Your task to perform on an android device: change text size in settings app Image 0: 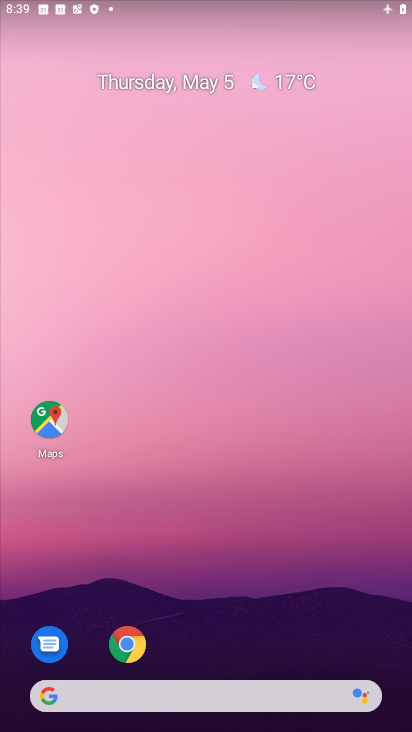
Step 0: drag from (213, 663) to (256, 93)
Your task to perform on an android device: change text size in settings app Image 1: 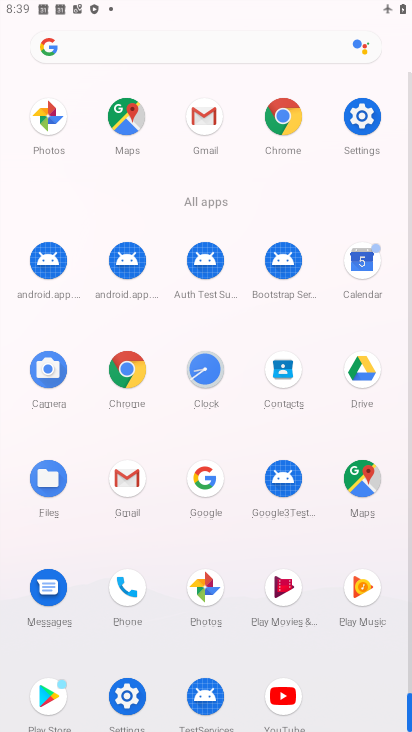
Step 1: drag from (171, 659) to (192, 288)
Your task to perform on an android device: change text size in settings app Image 2: 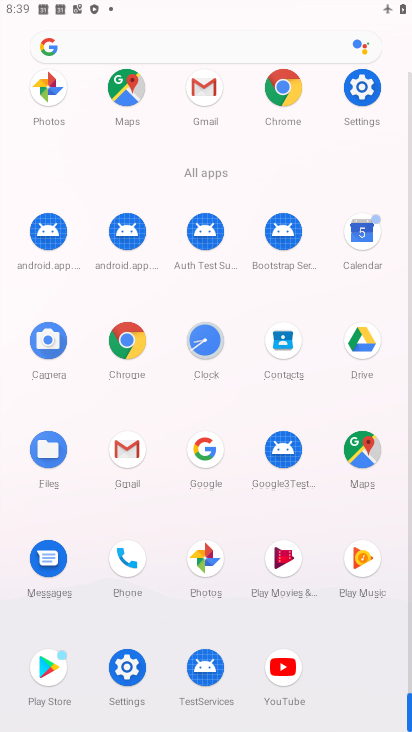
Step 2: click (120, 658)
Your task to perform on an android device: change text size in settings app Image 3: 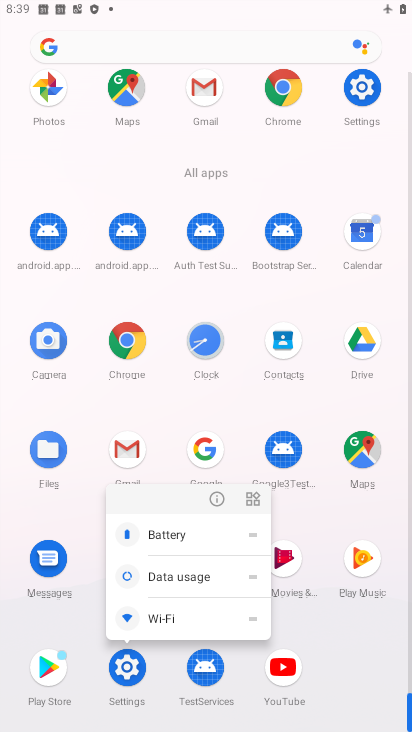
Step 3: click (220, 495)
Your task to perform on an android device: change text size in settings app Image 4: 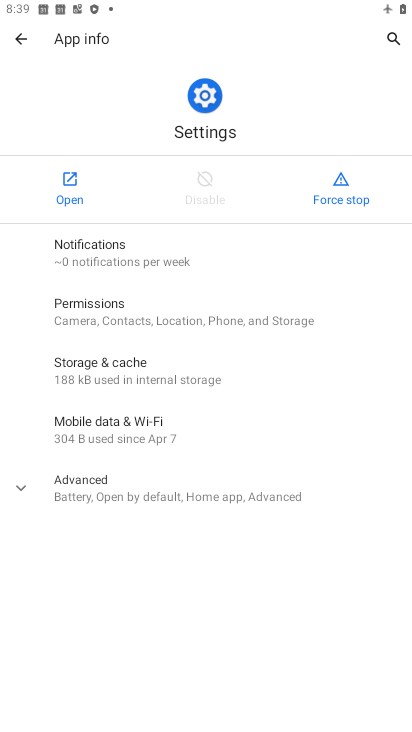
Step 4: click (71, 182)
Your task to perform on an android device: change text size in settings app Image 5: 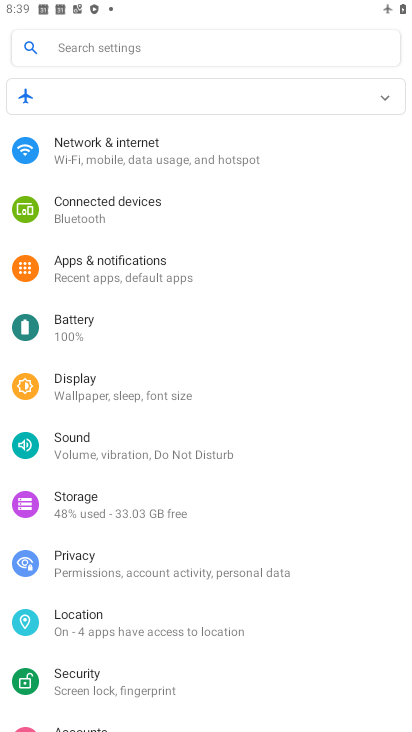
Step 5: drag from (174, 587) to (201, 178)
Your task to perform on an android device: change text size in settings app Image 6: 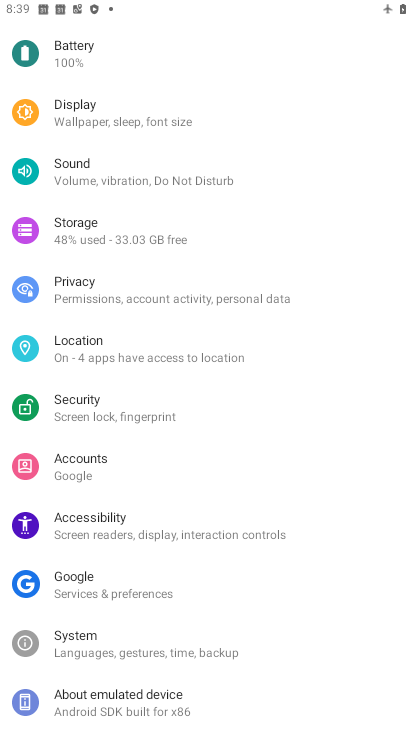
Step 6: click (165, 103)
Your task to perform on an android device: change text size in settings app Image 7: 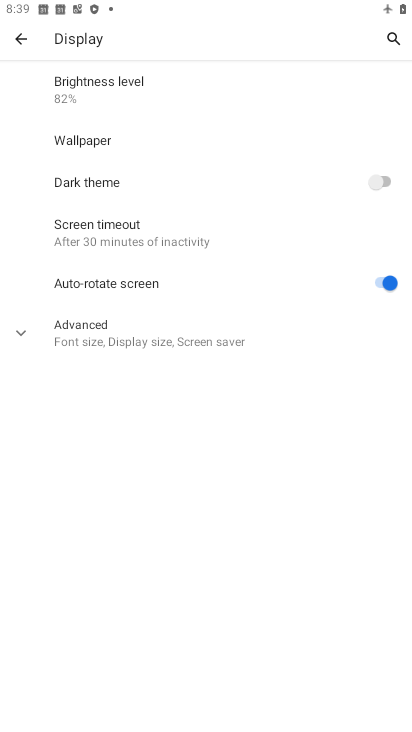
Step 7: click (135, 319)
Your task to perform on an android device: change text size in settings app Image 8: 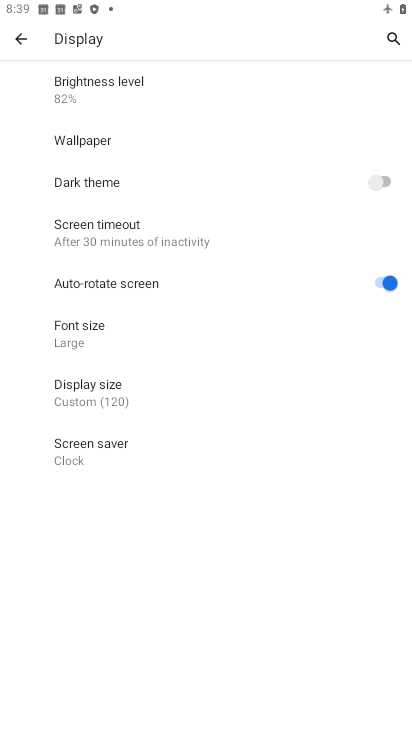
Step 8: click (133, 304)
Your task to perform on an android device: change text size in settings app Image 9: 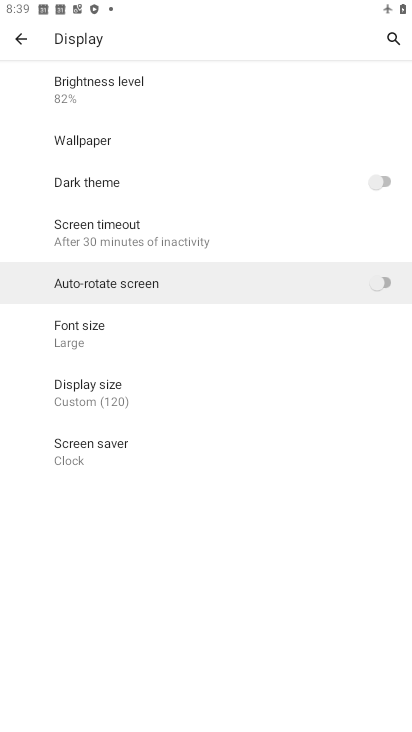
Step 9: click (108, 329)
Your task to perform on an android device: change text size in settings app Image 10: 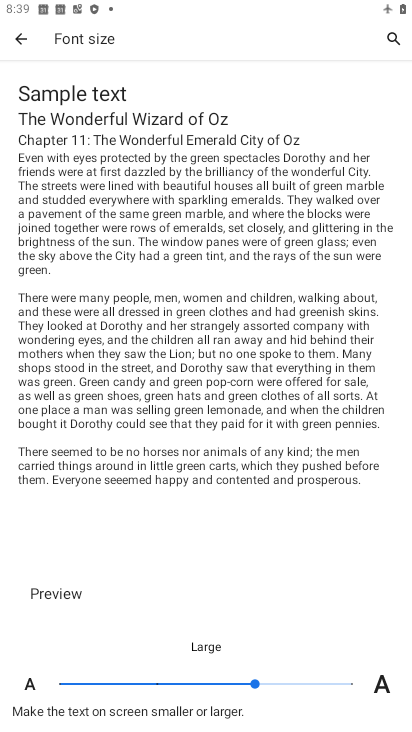
Step 10: click (159, 682)
Your task to perform on an android device: change text size in settings app Image 11: 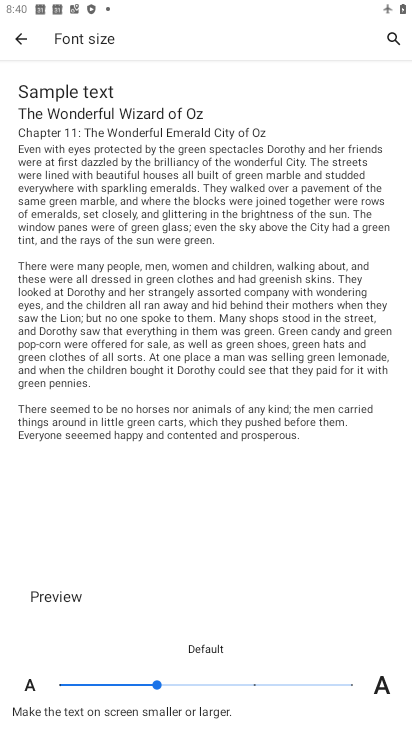
Step 11: task complete